Your task to perform on an android device: Search for vegetarian restaurants on Maps Image 0: 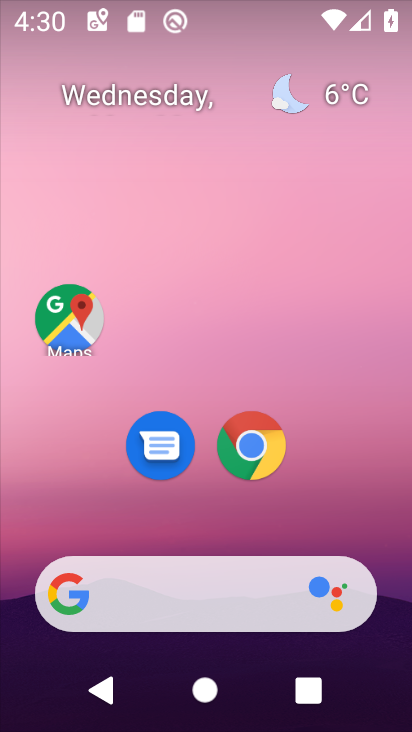
Step 0: click (62, 318)
Your task to perform on an android device: Search for vegetarian restaurants on Maps Image 1: 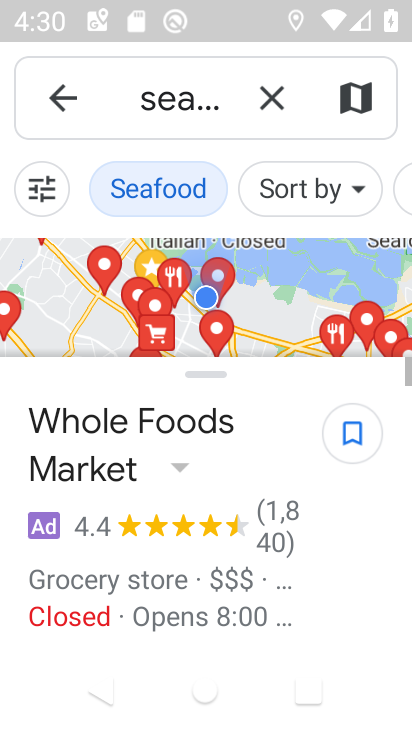
Step 1: click (278, 88)
Your task to perform on an android device: Search for vegetarian restaurants on Maps Image 2: 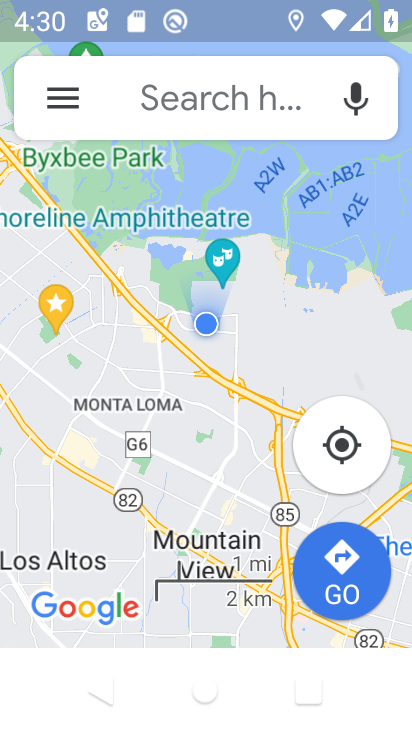
Step 2: click (209, 93)
Your task to perform on an android device: Search for vegetarian restaurants on Maps Image 3: 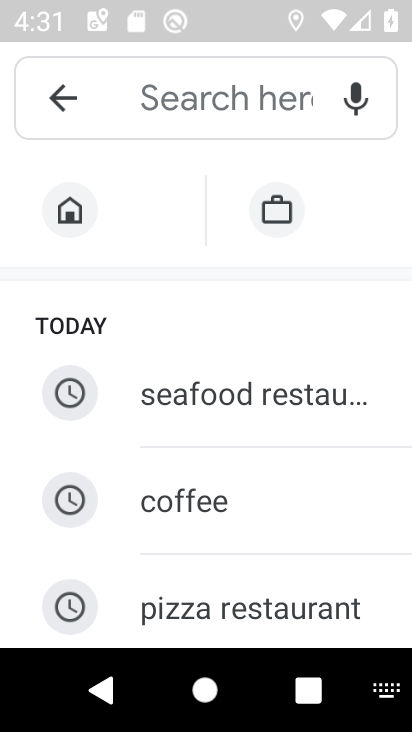
Step 3: type "vegetarian restaurants"
Your task to perform on an android device: Search for vegetarian restaurants on Maps Image 4: 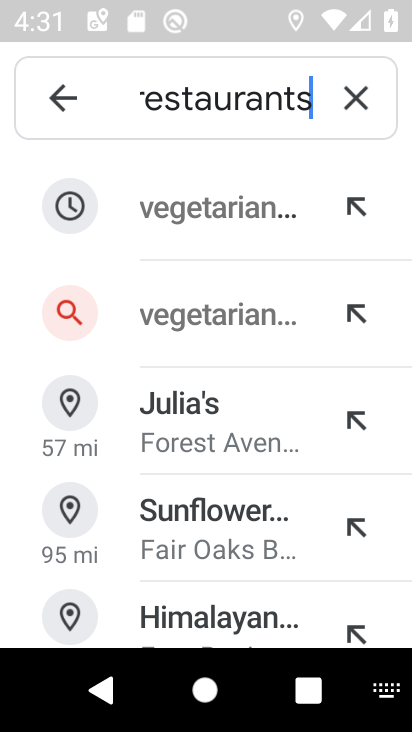
Step 4: click (217, 202)
Your task to perform on an android device: Search for vegetarian restaurants on Maps Image 5: 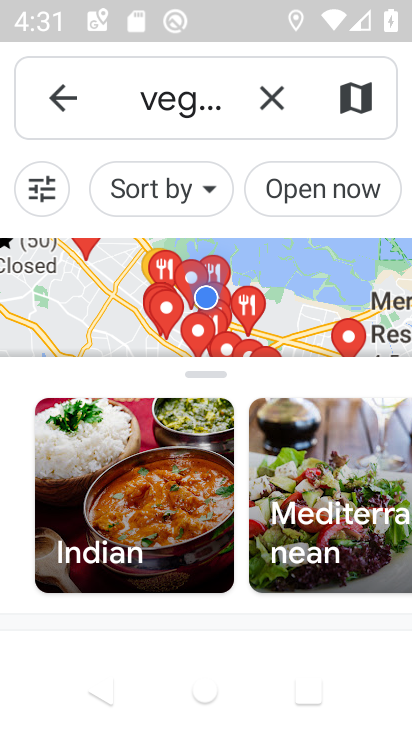
Step 5: task complete